Your task to perform on an android device: Open eBay Image 0: 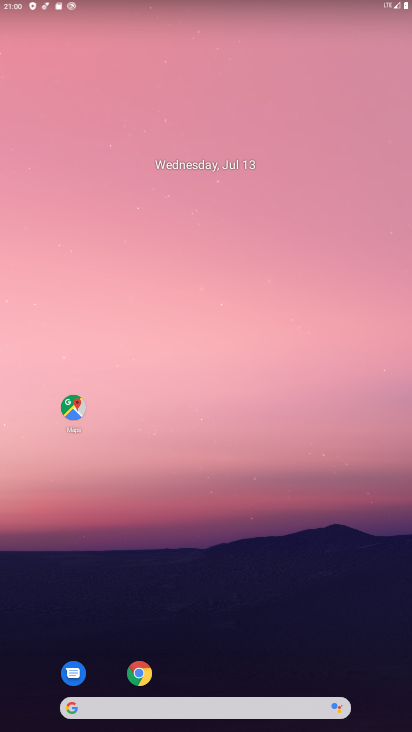
Step 0: press home button
Your task to perform on an android device: Open eBay Image 1: 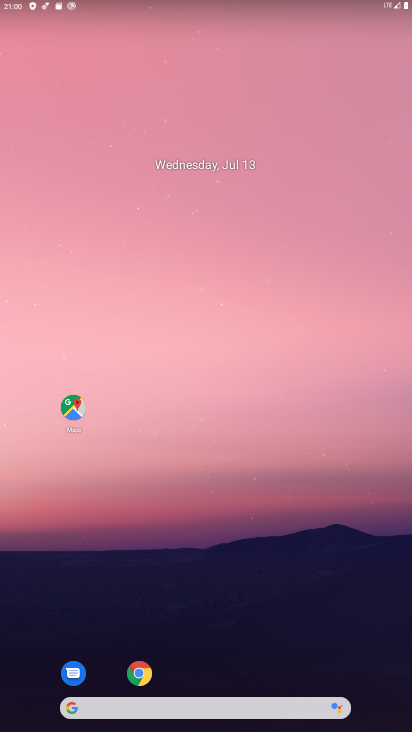
Step 1: click (224, 17)
Your task to perform on an android device: Open eBay Image 2: 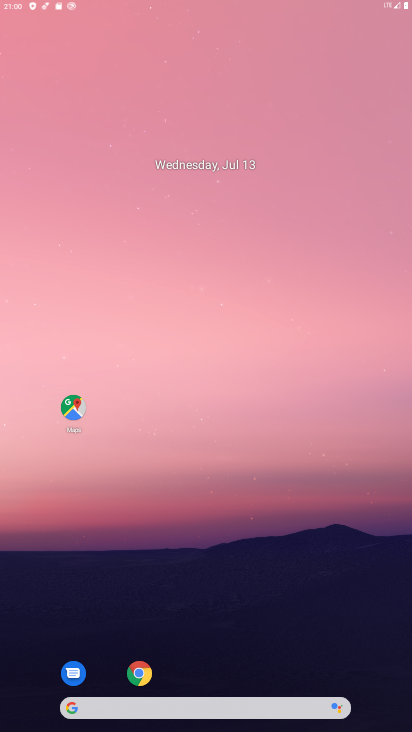
Step 2: click (284, 413)
Your task to perform on an android device: Open eBay Image 3: 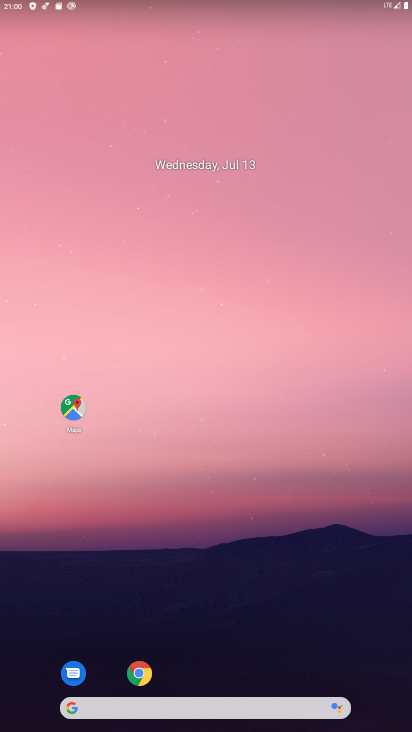
Step 3: drag from (172, 501) to (170, 30)
Your task to perform on an android device: Open eBay Image 4: 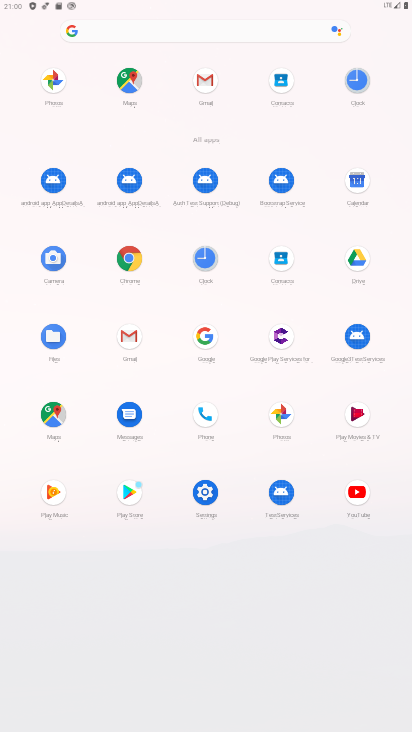
Step 4: click (174, 22)
Your task to perform on an android device: Open eBay Image 5: 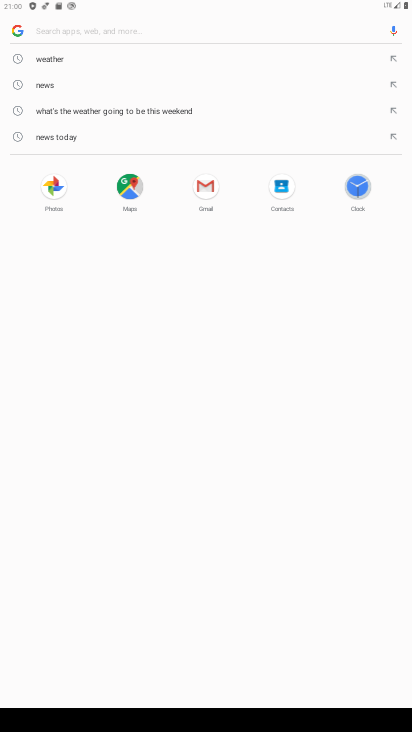
Step 5: type "ebay"
Your task to perform on an android device: Open eBay Image 6: 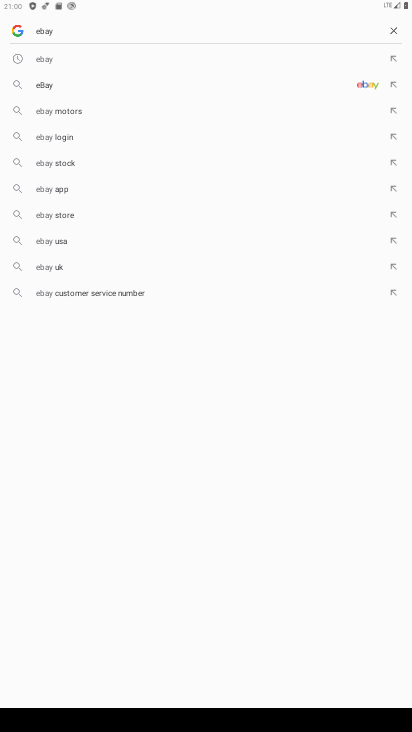
Step 6: click (72, 73)
Your task to perform on an android device: Open eBay Image 7: 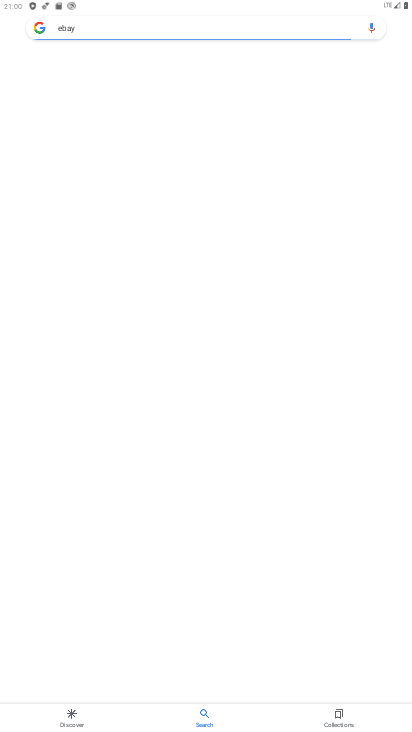
Step 7: task complete